Your task to perform on an android device: add a label to a message in the gmail app Image 0: 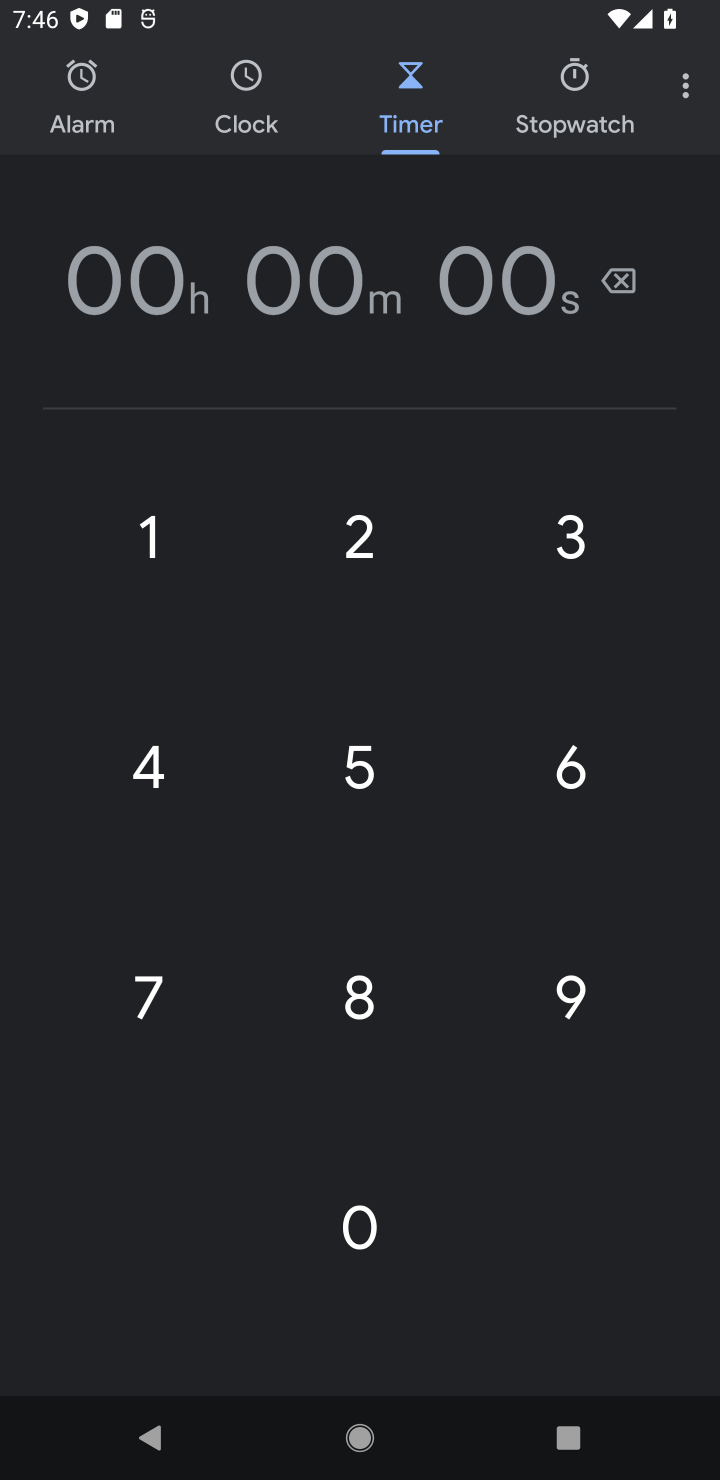
Step 0: press home button
Your task to perform on an android device: add a label to a message in the gmail app Image 1: 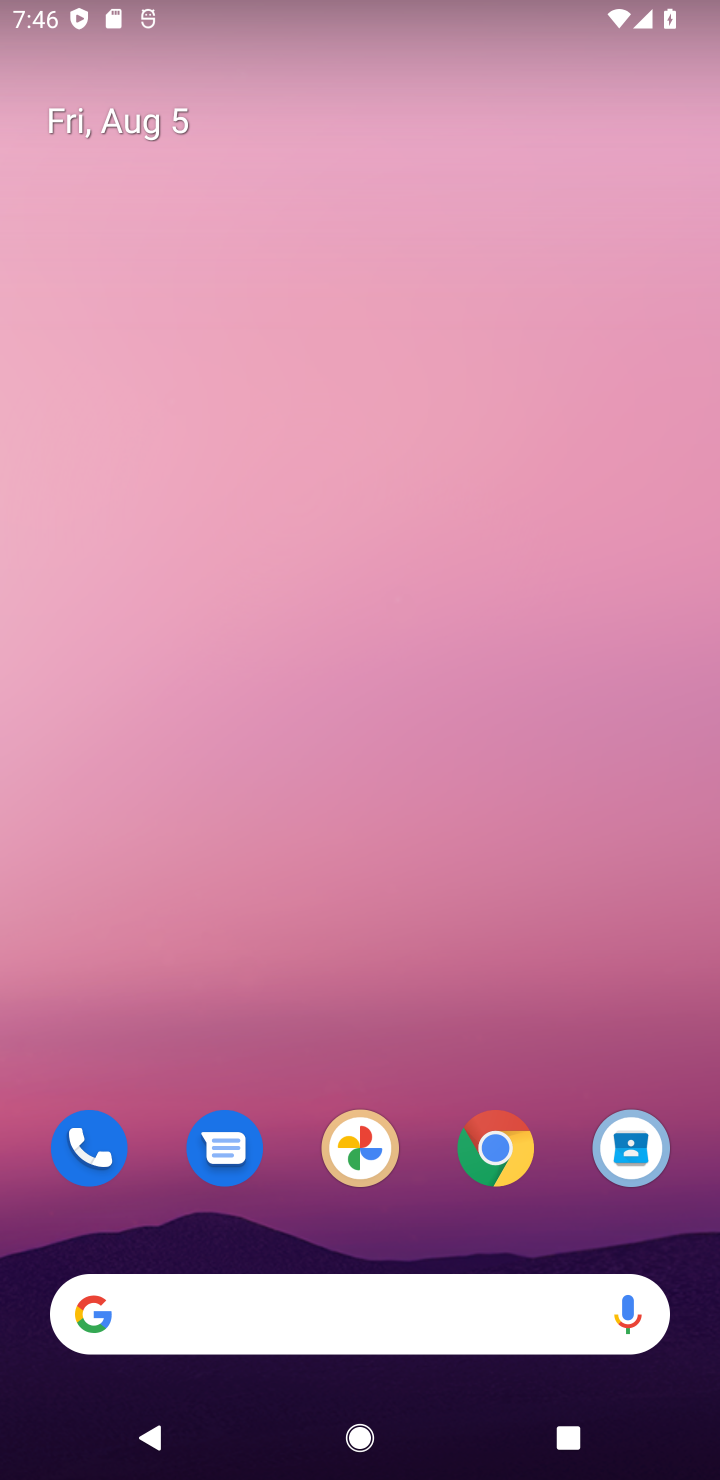
Step 1: drag from (406, 1221) to (470, 21)
Your task to perform on an android device: add a label to a message in the gmail app Image 2: 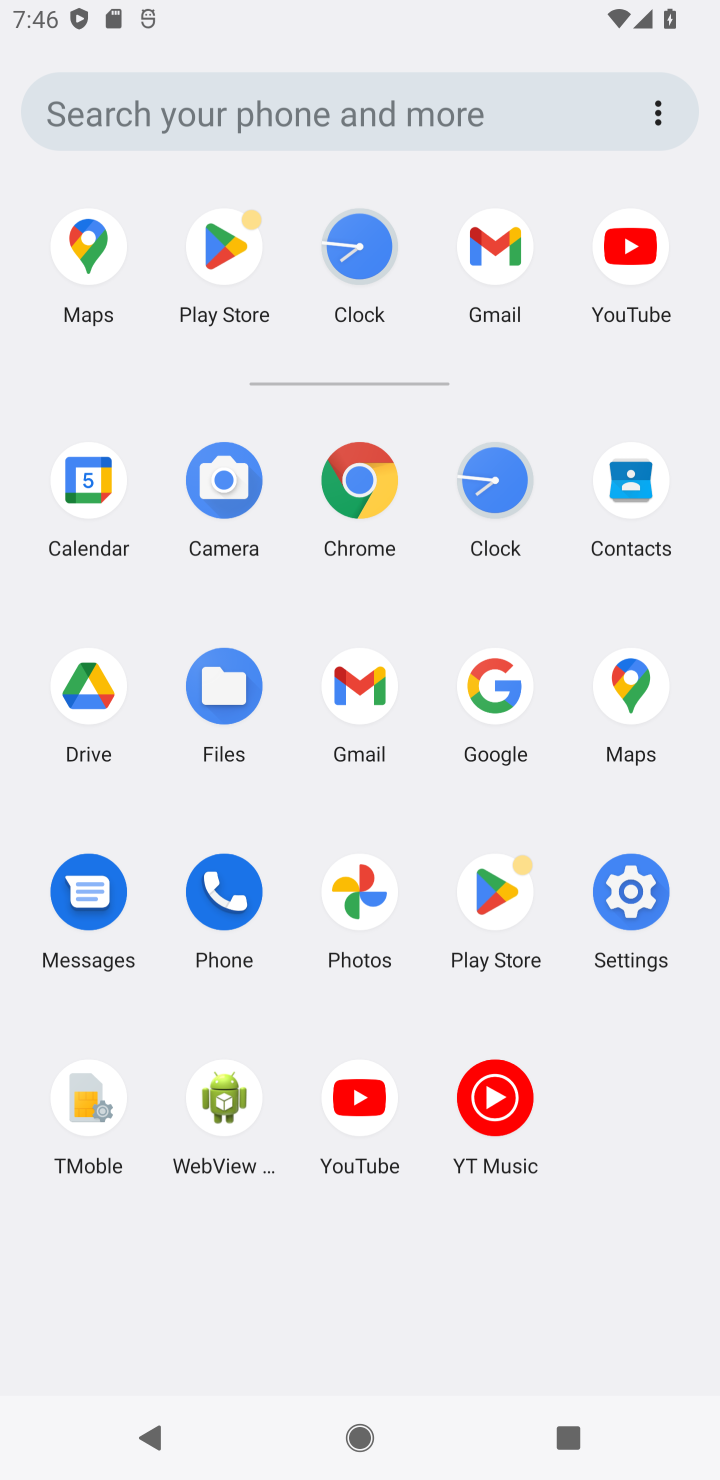
Step 2: click (496, 243)
Your task to perform on an android device: add a label to a message in the gmail app Image 3: 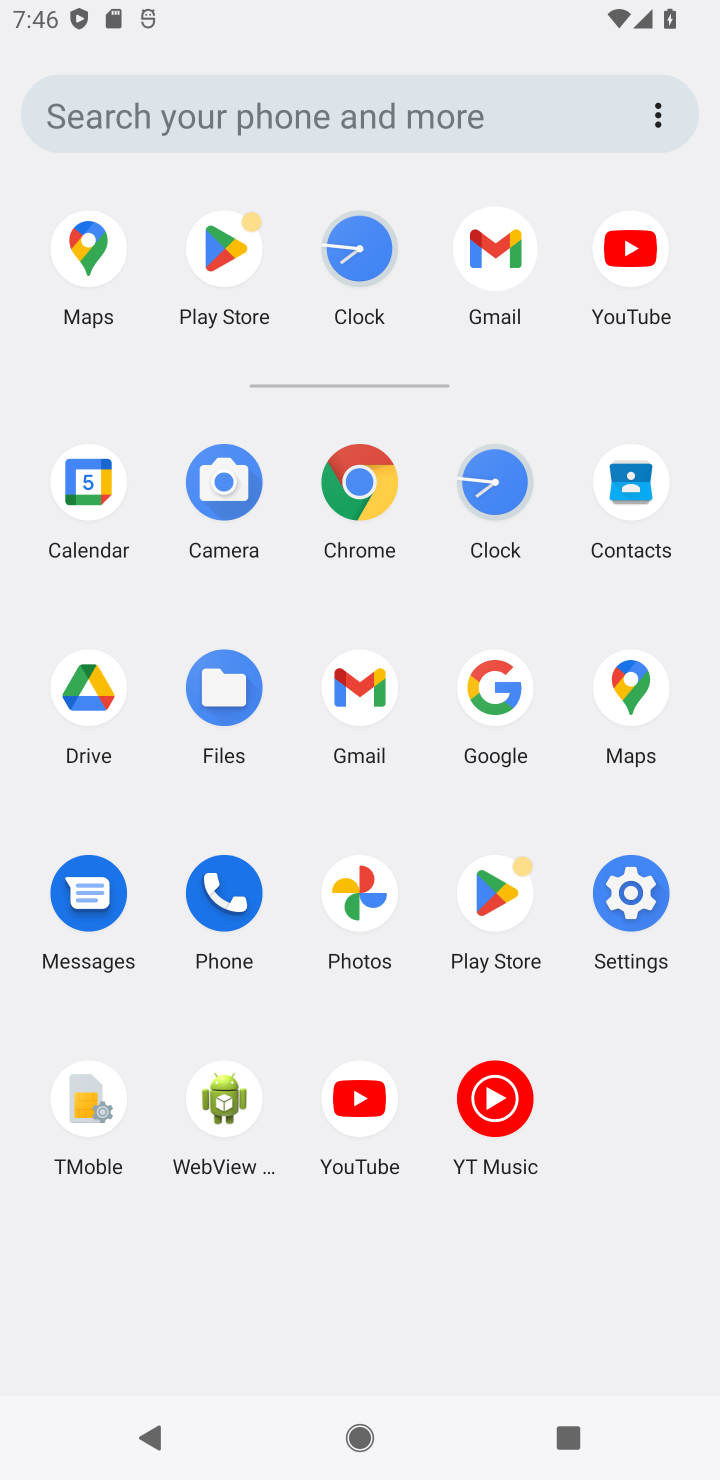
Step 3: click (496, 243)
Your task to perform on an android device: add a label to a message in the gmail app Image 4: 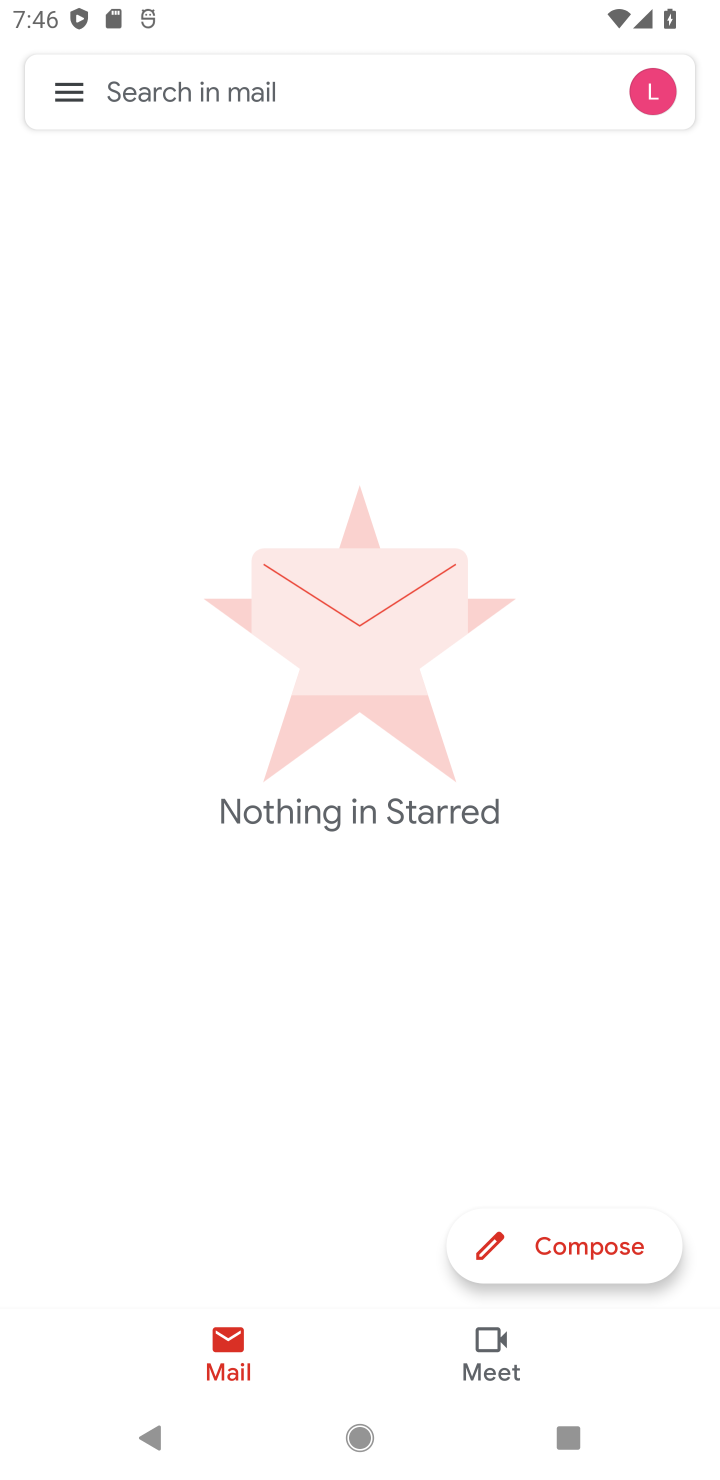
Step 4: task complete